Your task to perform on an android device: turn on airplane mode Image 0: 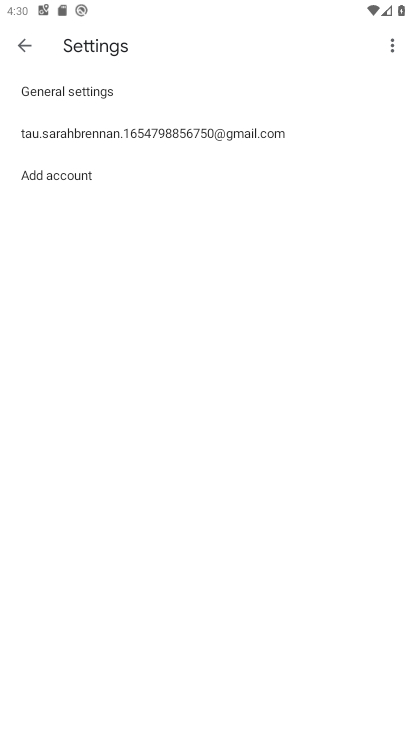
Step 0: press home button
Your task to perform on an android device: turn on airplane mode Image 1: 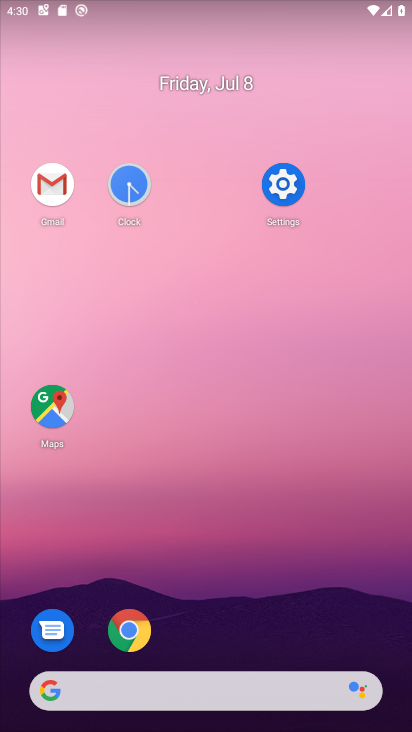
Step 1: click (280, 177)
Your task to perform on an android device: turn on airplane mode Image 2: 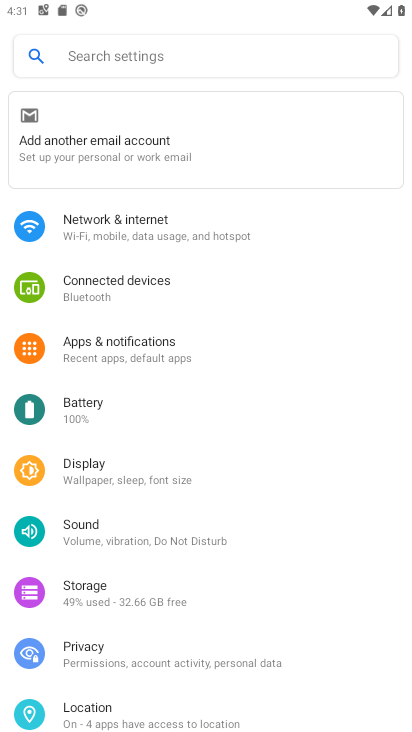
Step 2: click (166, 226)
Your task to perform on an android device: turn on airplane mode Image 3: 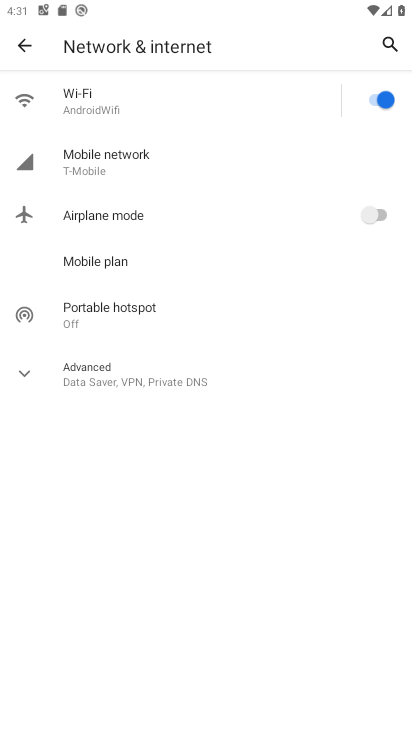
Step 3: click (370, 210)
Your task to perform on an android device: turn on airplane mode Image 4: 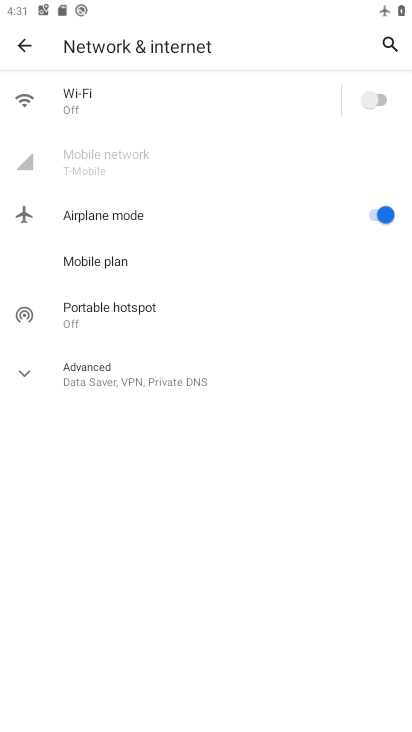
Step 4: task complete